Your task to perform on an android device: turn off wifi Image 0: 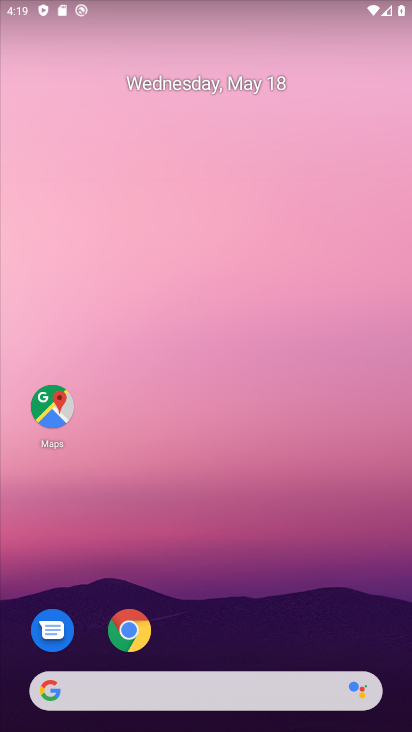
Step 0: drag from (197, 676) to (127, 138)
Your task to perform on an android device: turn off wifi Image 1: 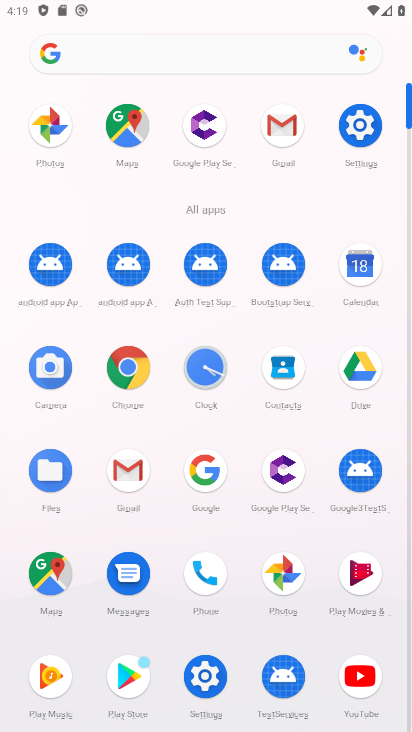
Step 1: click (359, 120)
Your task to perform on an android device: turn off wifi Image 2: 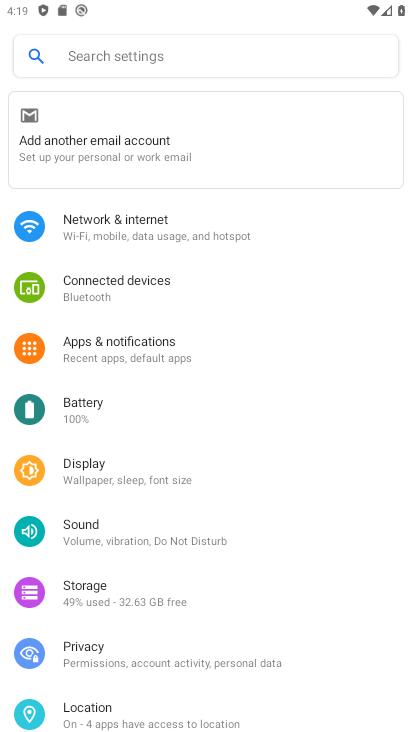
Step 2: click (165, 219)
Your task to perform on an android device: turn off wifi Image 3: 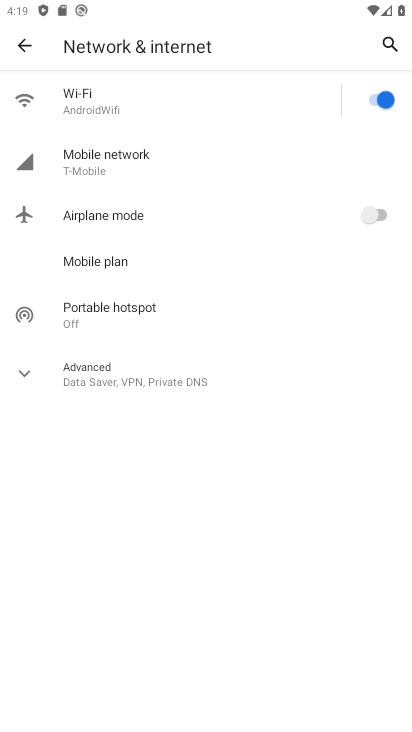
Step 3: click (371, 95)
Your task to perform on an android device: turn off wifi Image 4: 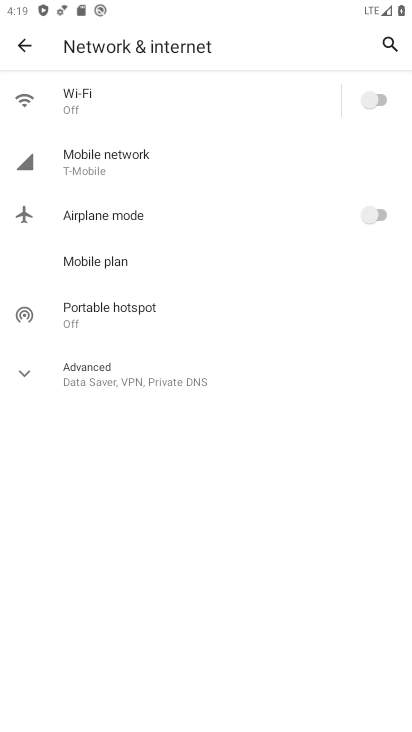
Step 4: task complete